Your task to perform on an android device: toggle wifi Image 0: 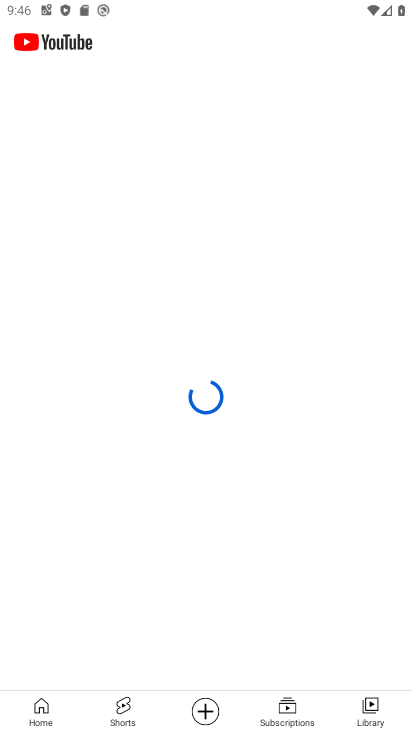
Step 0: drag from (194, 557) to (253, 33)
Your task to perform on an android device: toggle wifi Image 1: 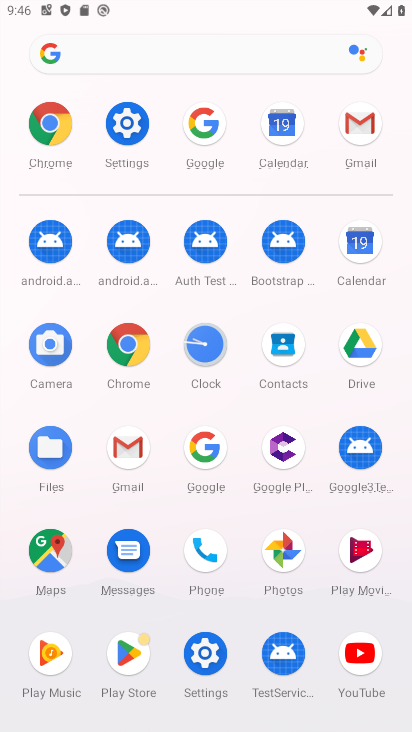
Step 1: click (128, 119)
Your task to perform on an android device: toggle wifi Image 2: 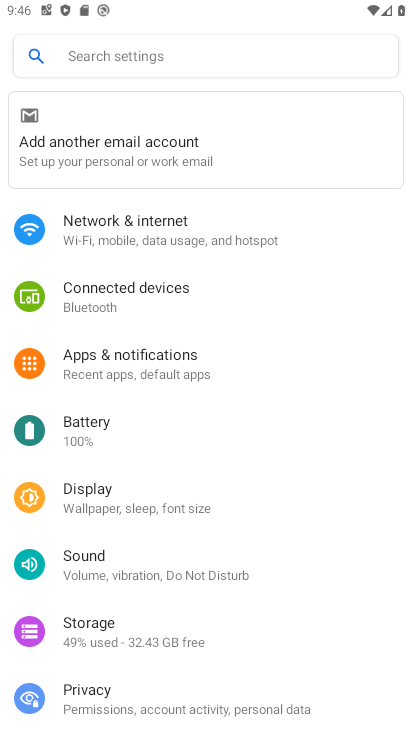
Step 2: click (192, 229)
Your task to perform on an android device: toggle wifi Image 3: 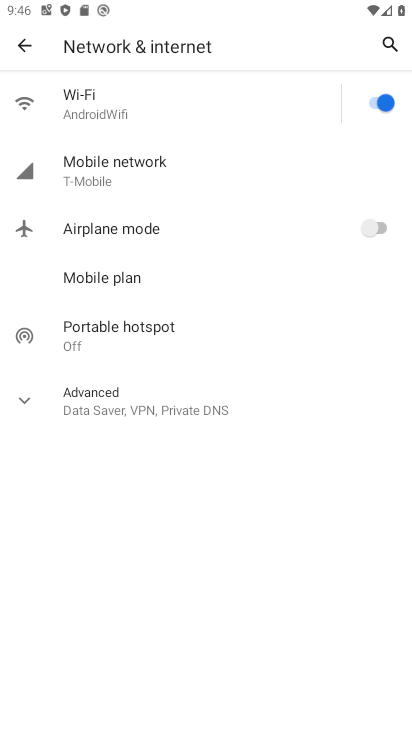
Step 3: click (374, 110)
Your task to perform on an android device: toggle wifi Image 4: 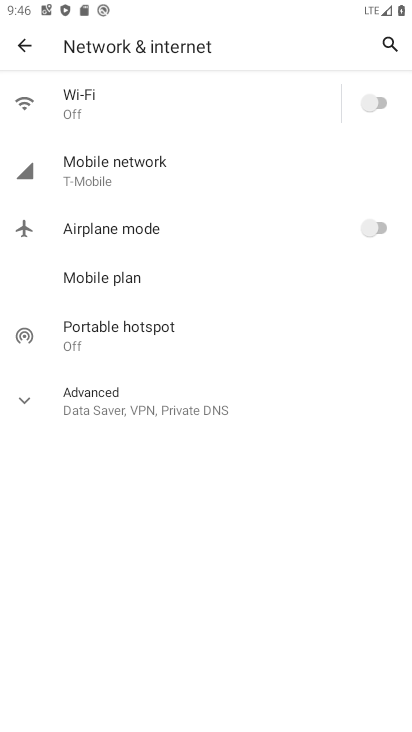
Step 4: task complete